Your task to perform on an android device: Go to battery settings Image 0: 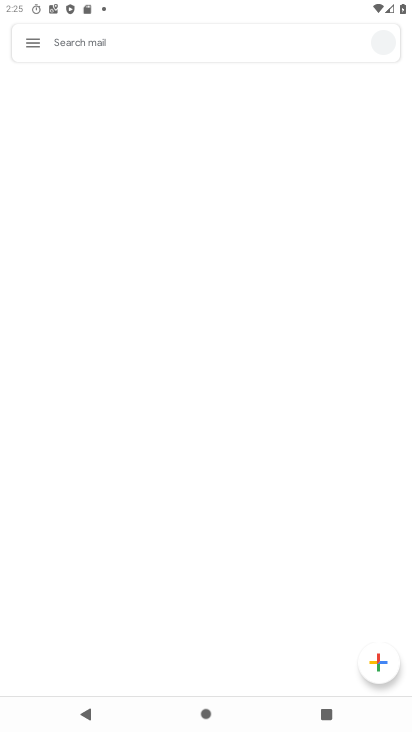
Step 0: drag from (246, 647) to (285, 214)
Your task to perform on an android device: Go to battery settings Image 1: 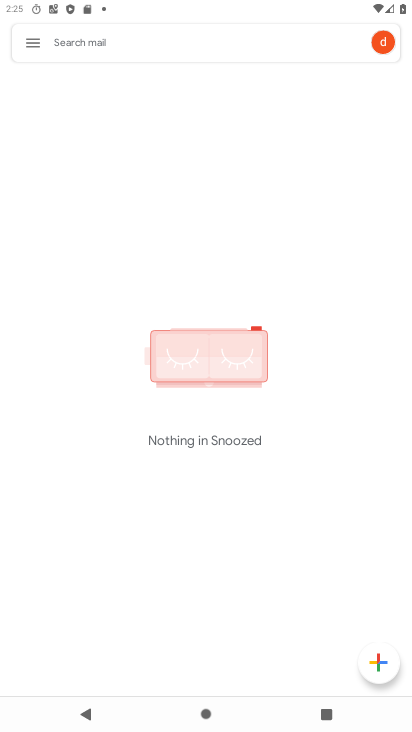
Step 1: press home button
Your task to perform on an android device: Go to battery settings Image 2: 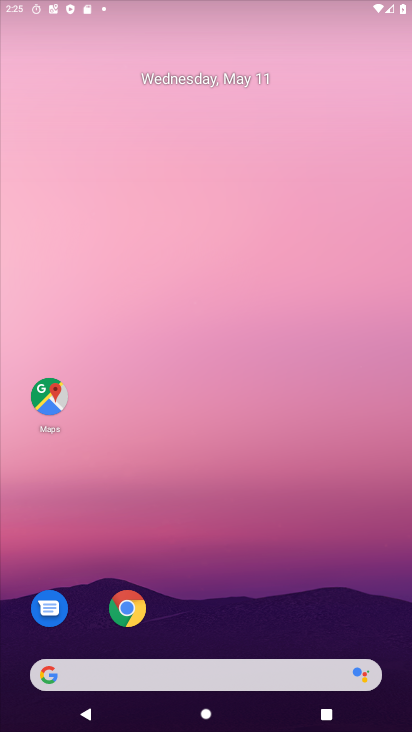
Step 2: drag from (246, 606) to (288, 174)
Your task to perform on an android device: Go to battery settings Image 3: 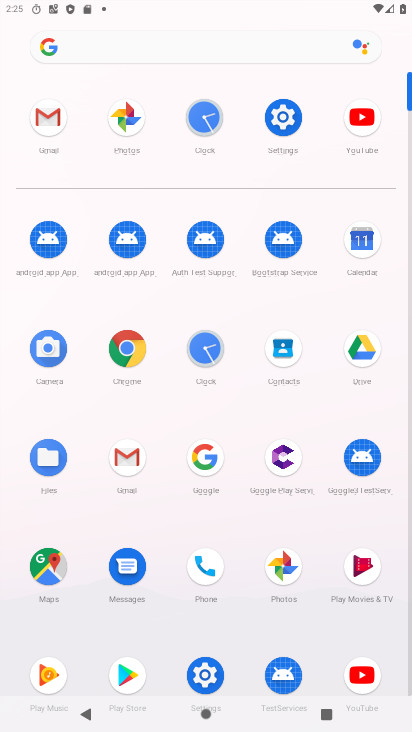
Step 3: click (286, 132)
Your task to perform on an android device: Go to battery settings Image 4: 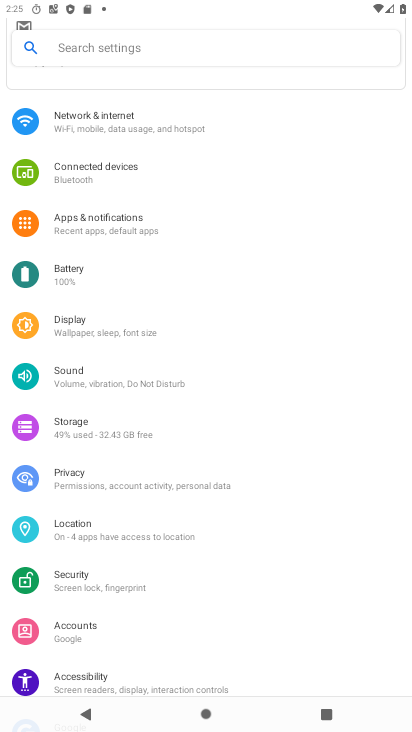
Step 4: click (104, 268)
Your task to perform on an android device: Go to battery settings Image 5: 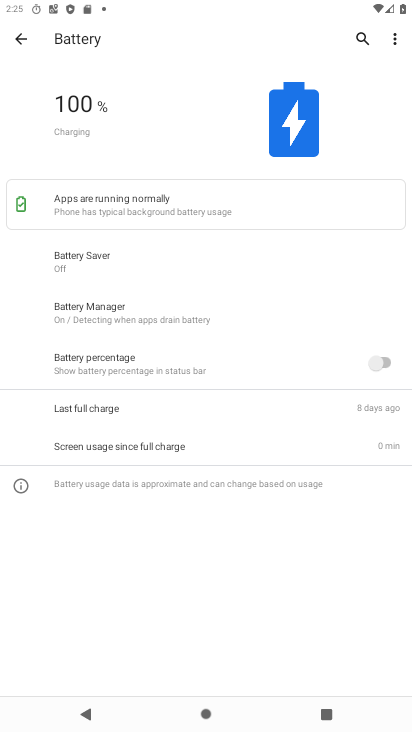
Step 5: task complete